Your task to perform on an android device: uninstall "Fetch Rewards" Image 0: 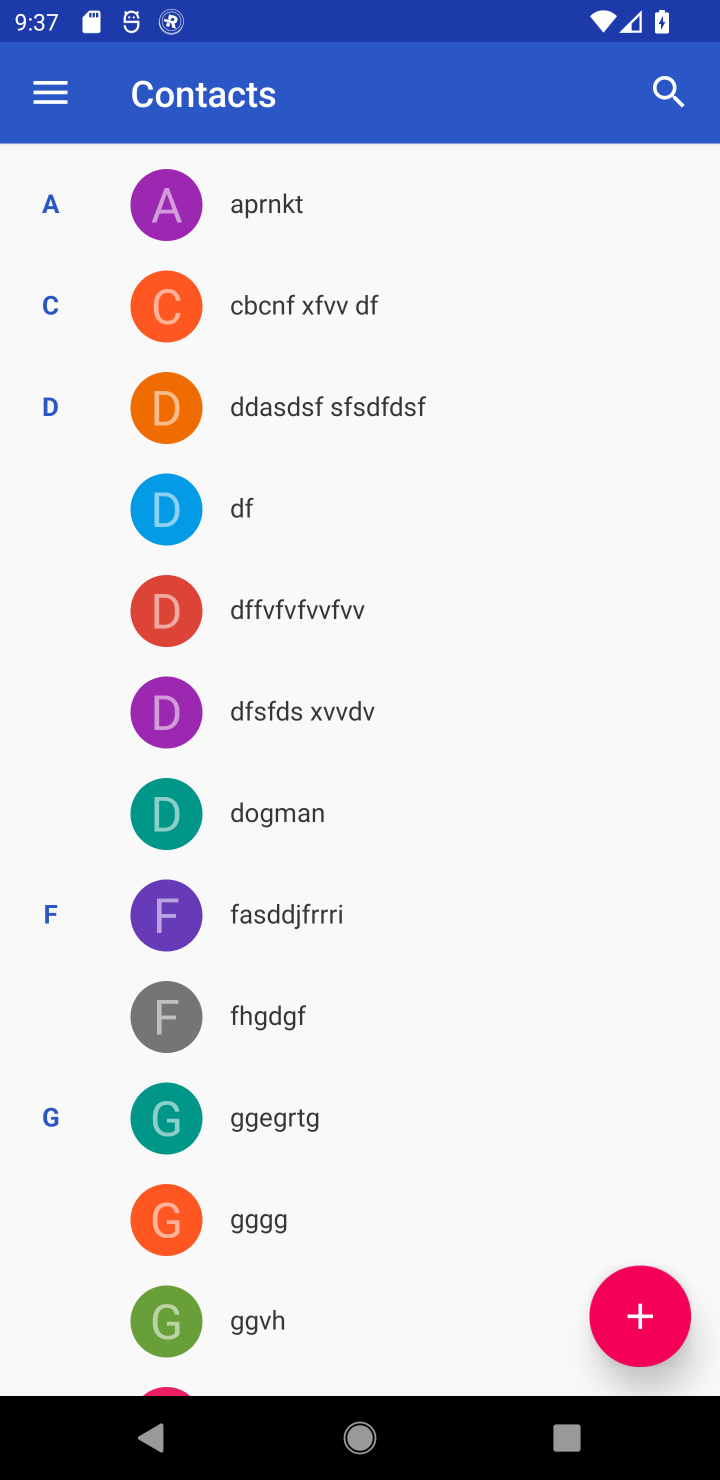
Step 0: press home button
Your task to perform on an android device: uninstall "Fetch Rewards" Image 1: 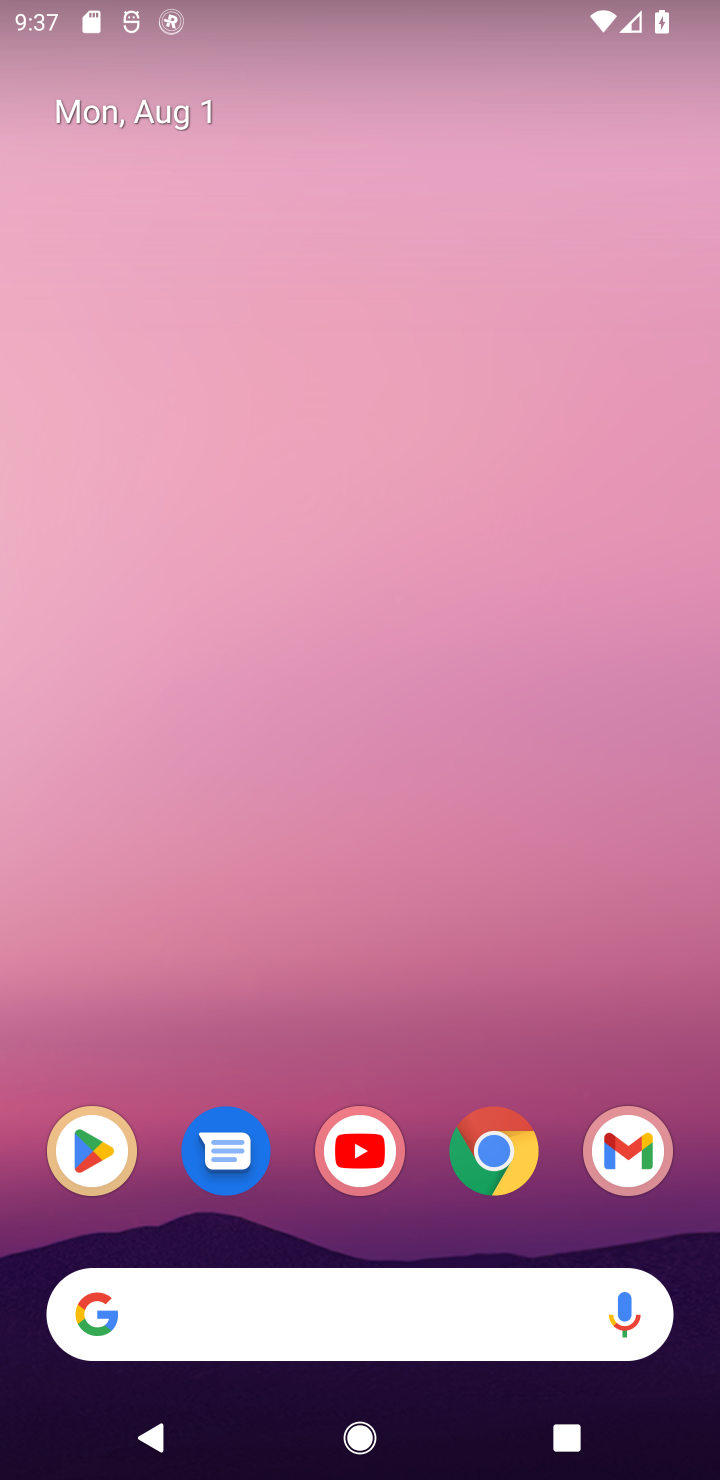
Step 1: click (92, 1153)
Your task to perform on an android device: uninstall "Fetch Rewards" Image 2: 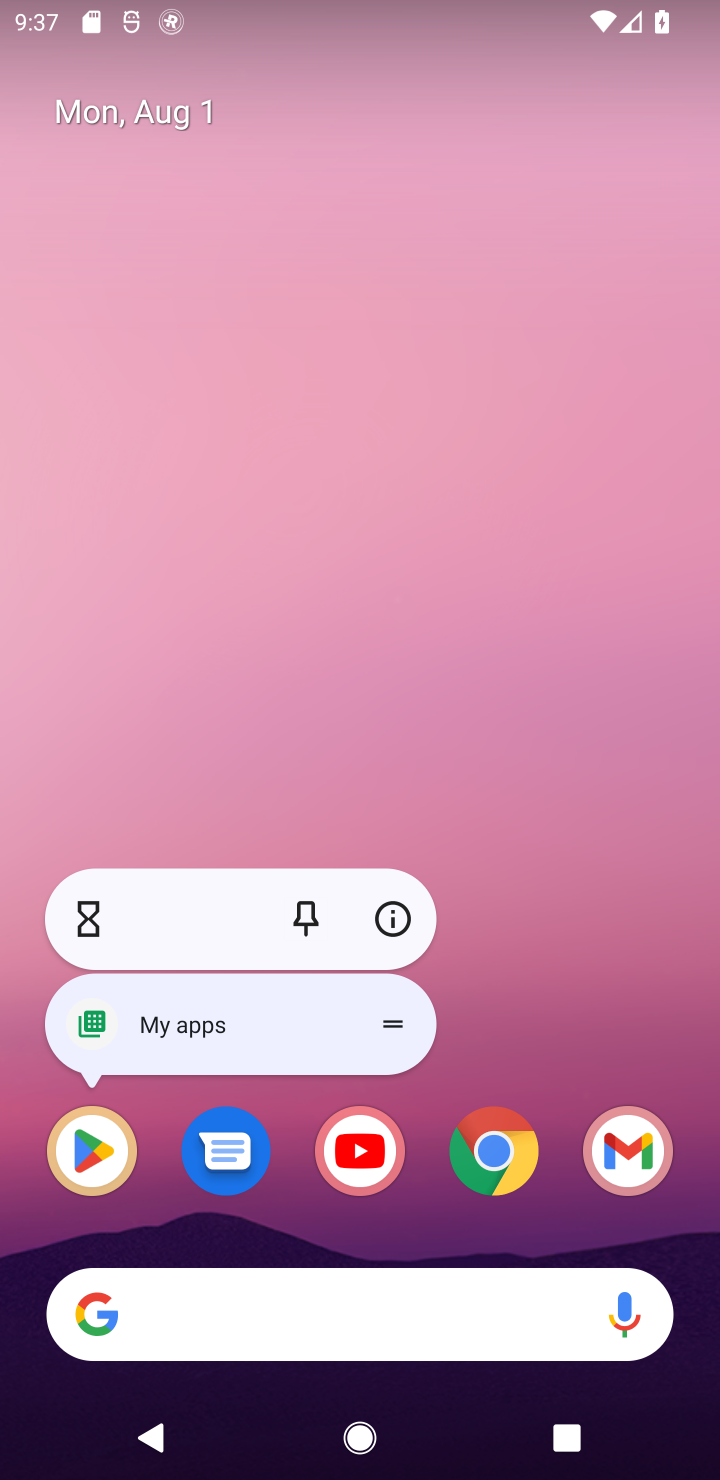
Step 2: click (105, 1141)
Your task to perform on an android device: uninstall "Fetch Rewards" Image 3: 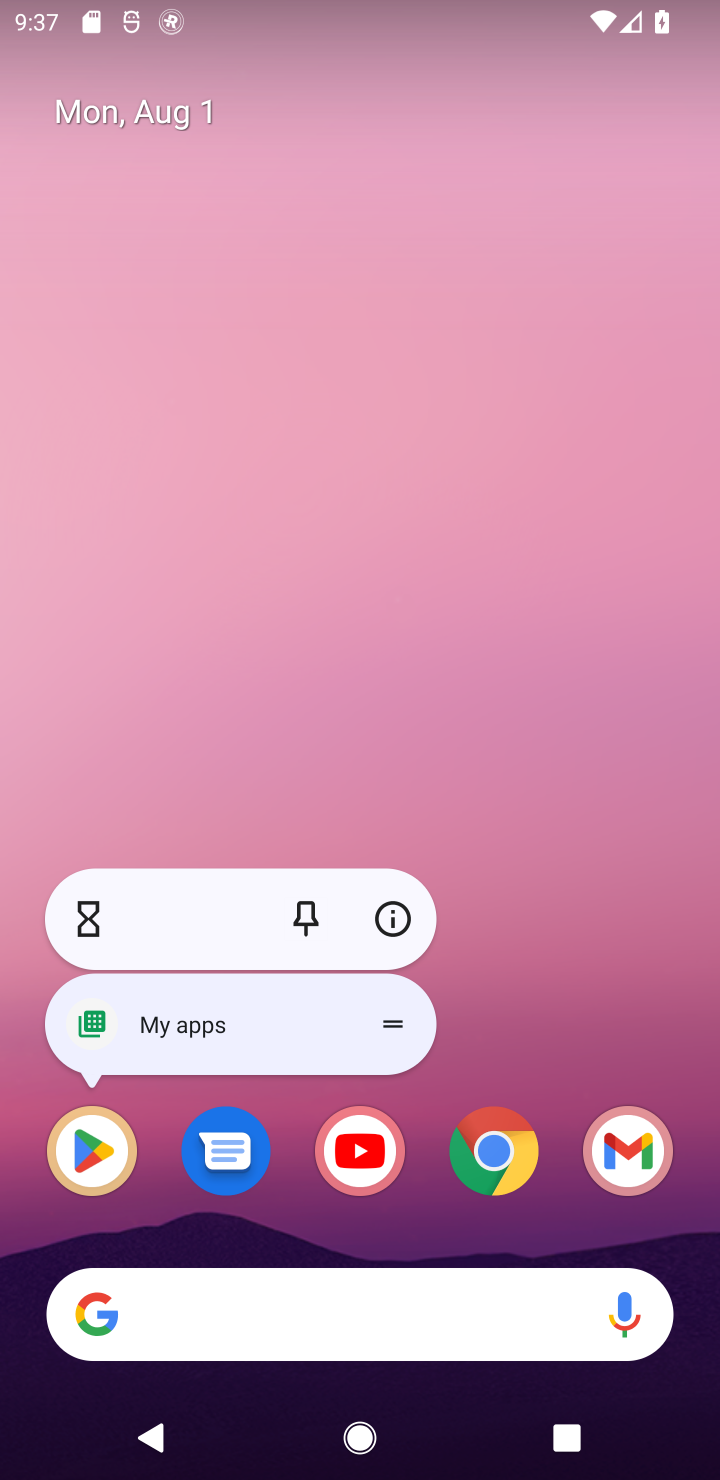
Step 3: click (105, 1141)
Your task to perform on an android device: uninstall "Fetch Rewards" Image 4: 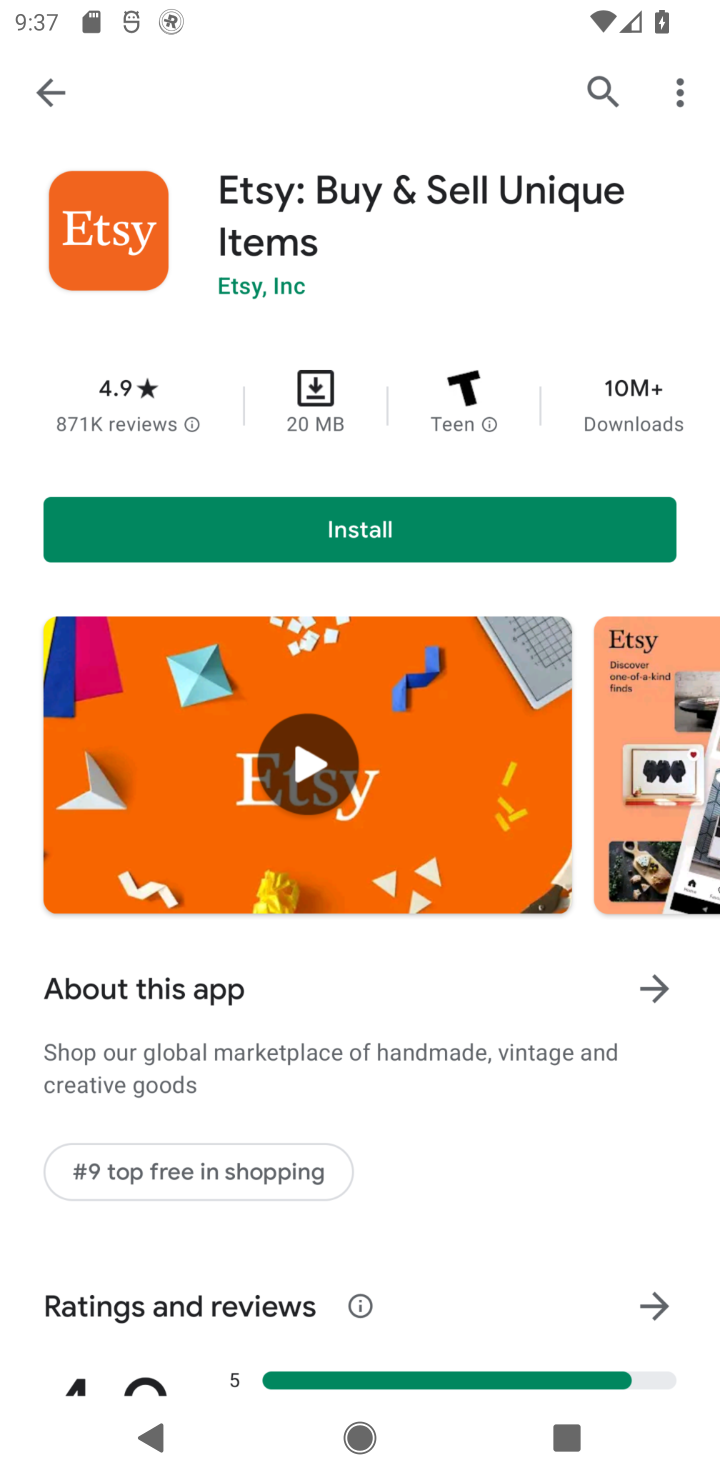
Step 4: click (103, 1141)
Your task to perform on an android device: uninstall "Fetch Rewards" Image 5: 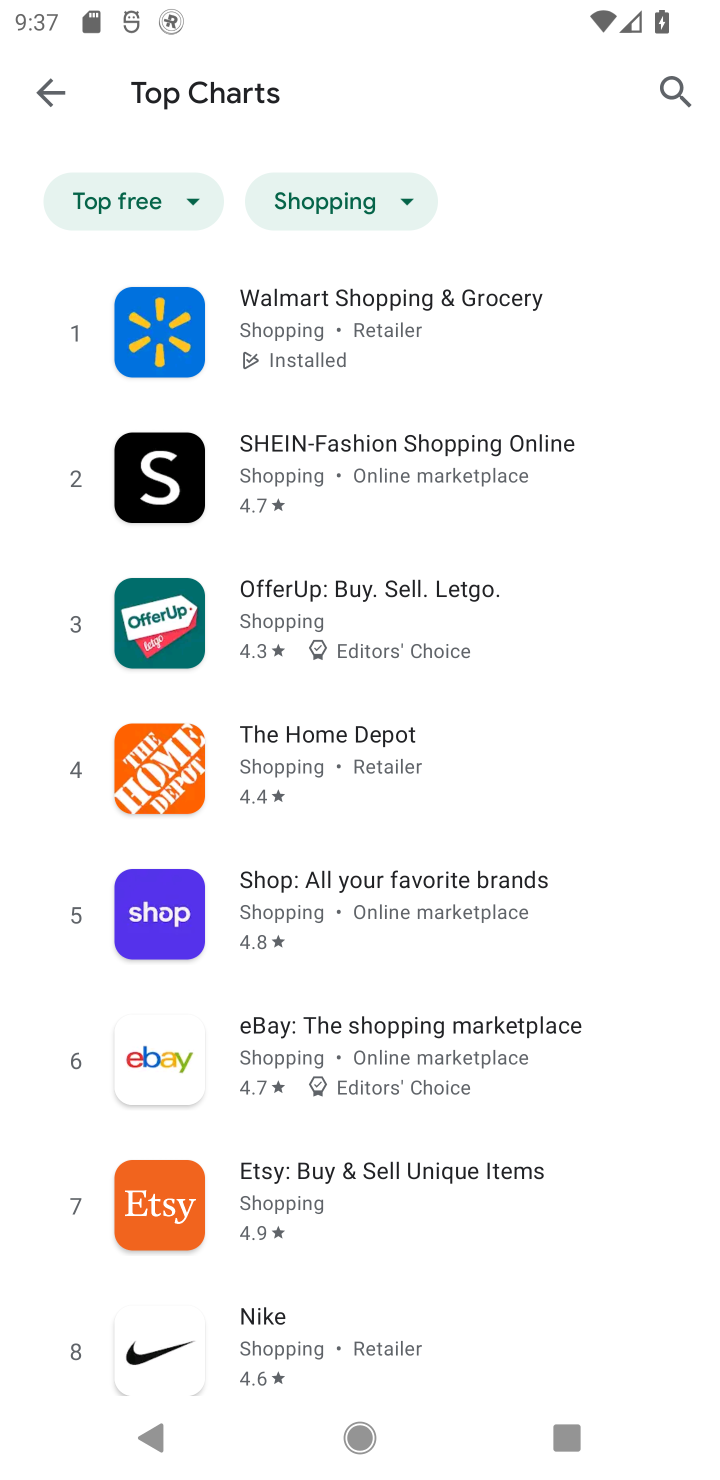
Step 5: click (648, 90)
Your task to perform on an android device: uninstall "Fetch Rewards" Image 6: 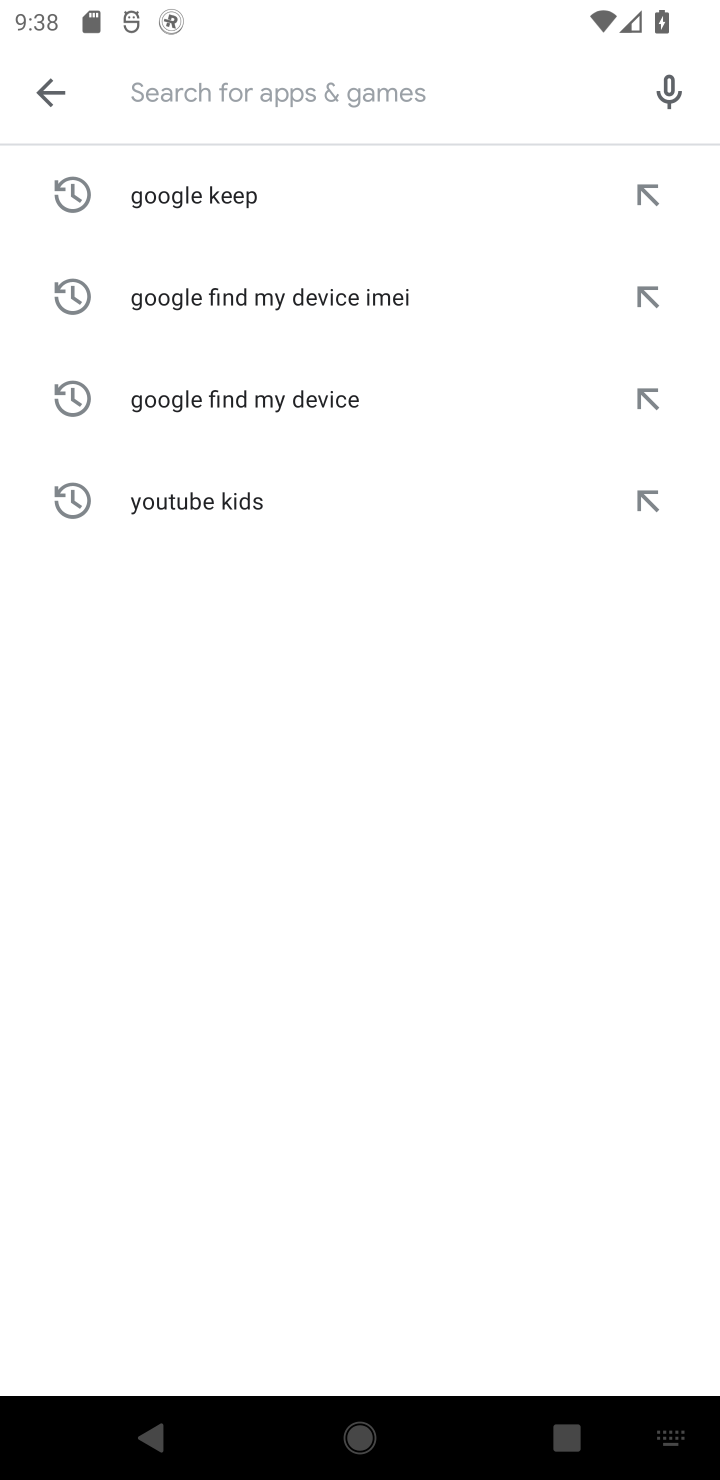
Step 6: type "Fetch Rewards"
Your task to perform on an android device: uninstall "Fetch Rewards" Image 7: 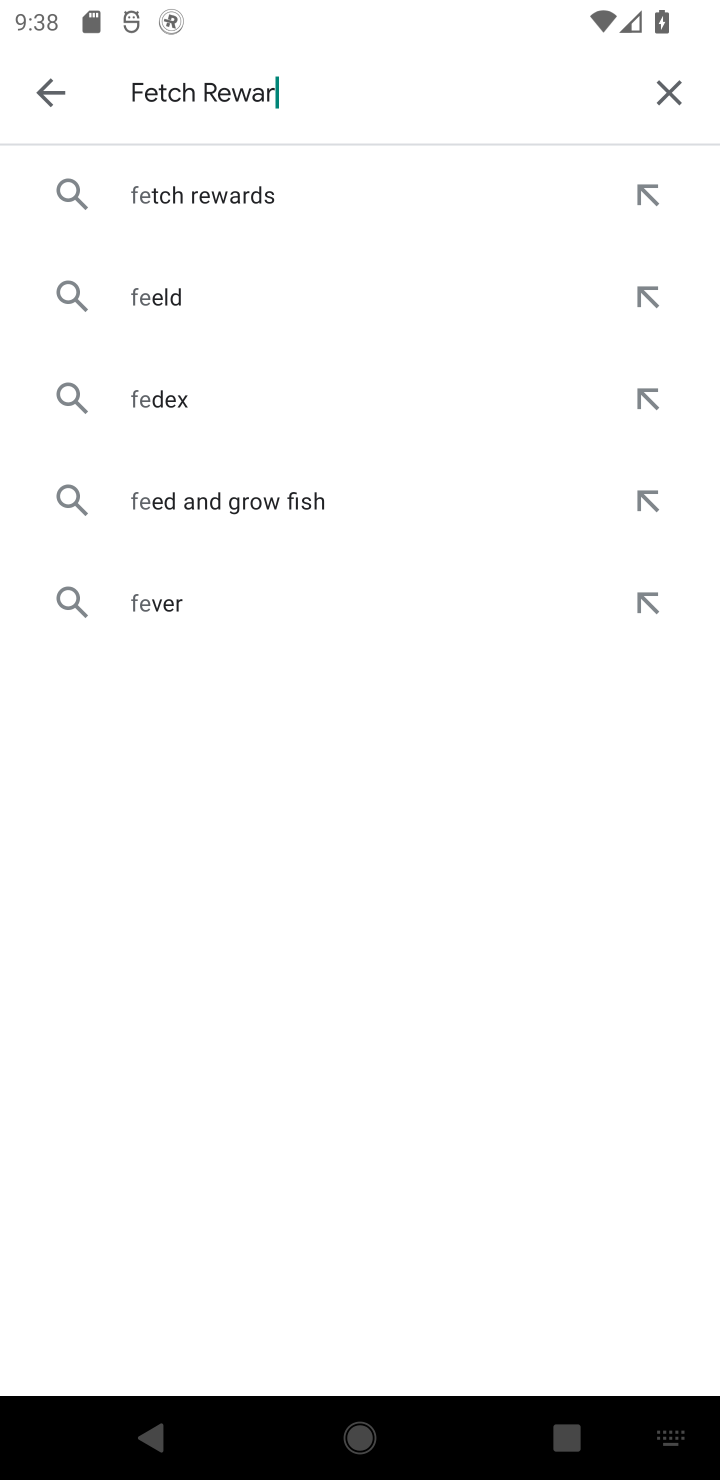
Step 7: type ""
Your task to perform on an android device: uninstall "Fetch Rewards" Image 8: 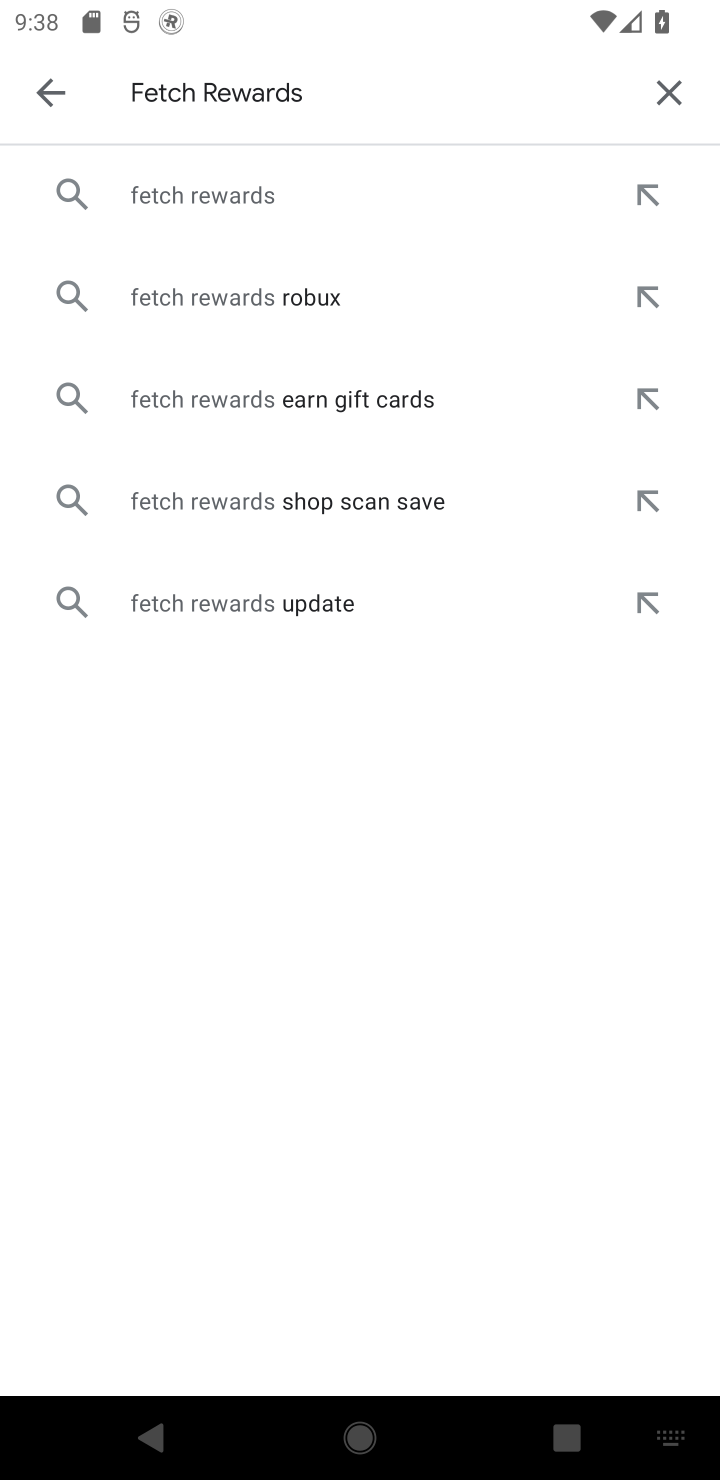
Step 8: click (244, 174)
Your task to perform on an android device: uninstall "Fetch Rewards" Image 9: 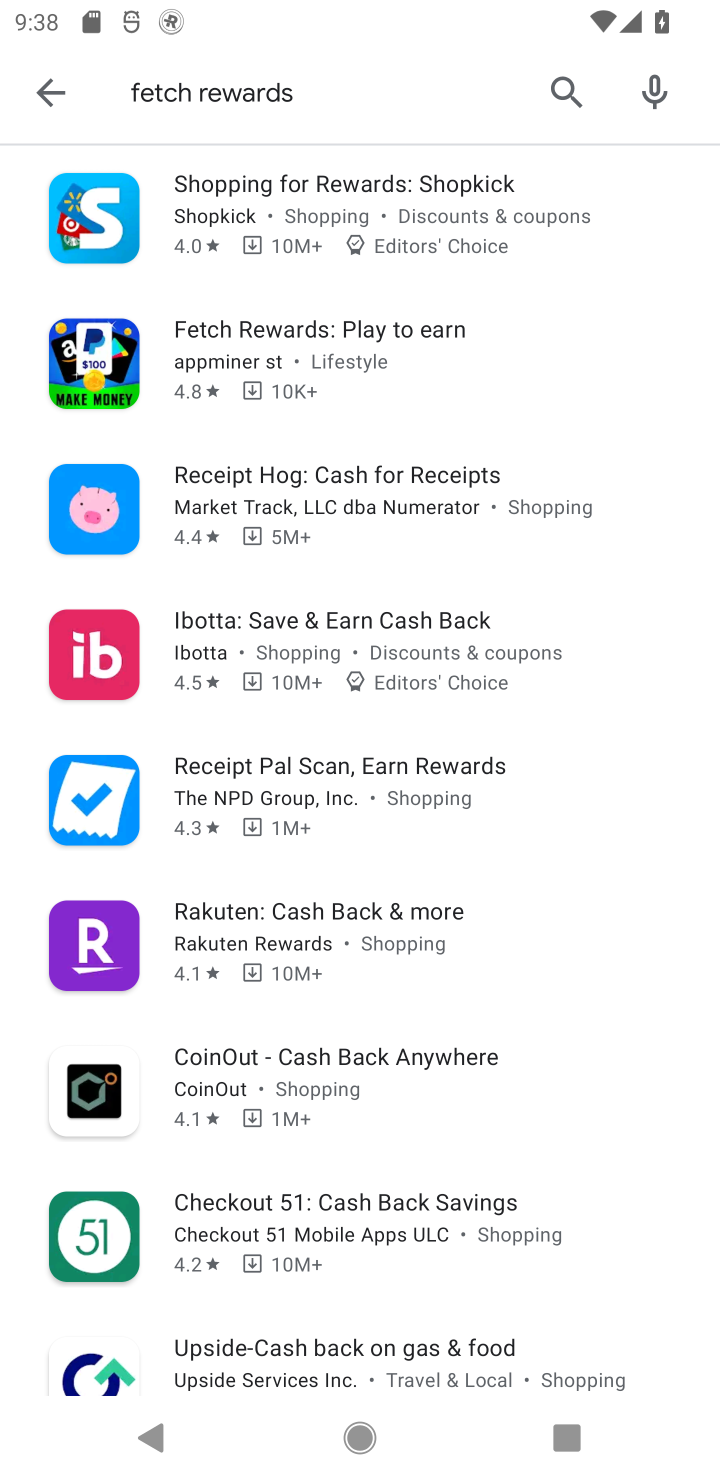
Step 9: click (324, 376)
Your task to perform on an android device: uninstall "Fetch Rewards" Image 10: 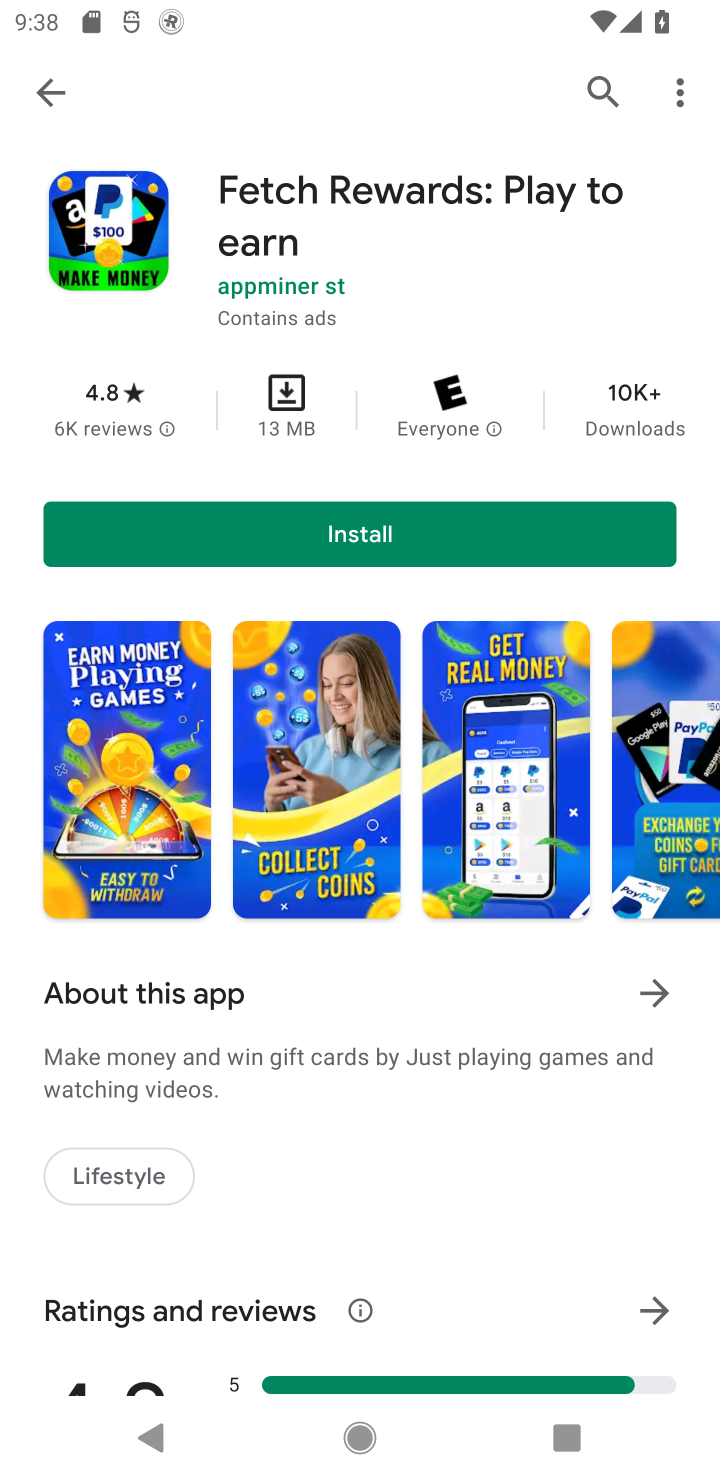
Step 10: task complete